Your task to perform on an android device: Go to network settings Image 0: 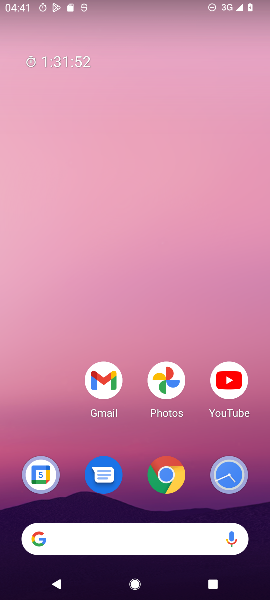
Step 0: press home button
Your task to perform on an android device: Go to network settings Image 1: 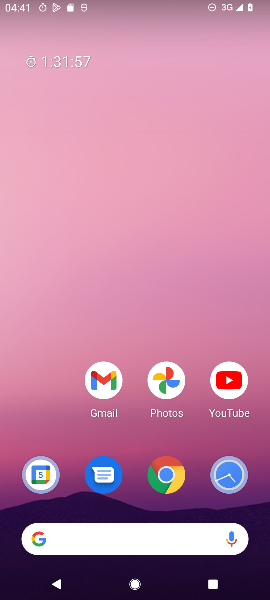
Step 1: drag from (51, 421) to (64, 194)
Your task to perform on an android device: Go to network settings Image 2: 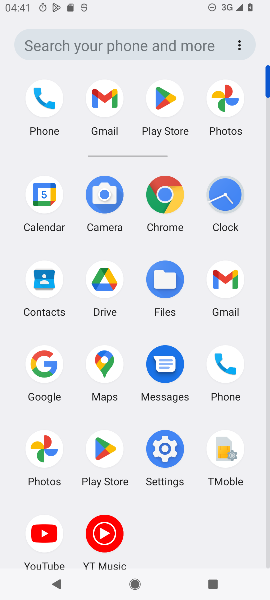
Step 2: click (166, 449)
Your task to perform on an android device: Go to network settings Image 3: 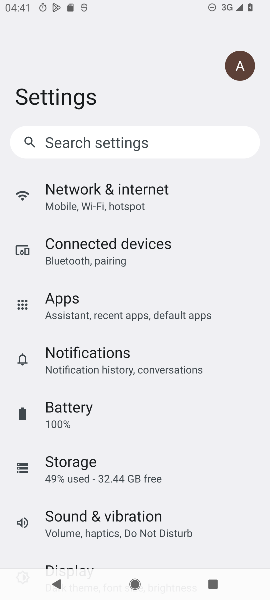
Step 3: drag from (238, 435) to (234, 314)
Your task to perform on an android device: Go to network settings Image 4: 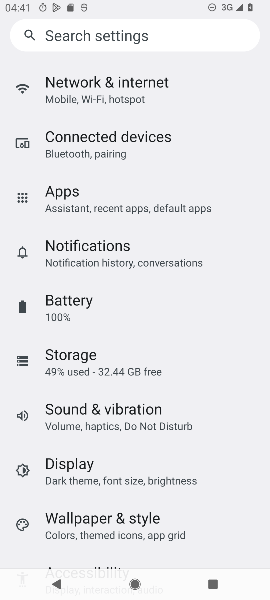
Step 4: drag from (218, 426) to (229, 348)
Your task to perform on an android device: Go to network settings Image 5: 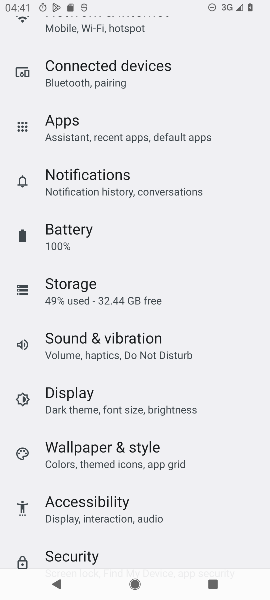
Step 5: drag from (222, 478) to (223, 362)
Your task to perform on an android device: Go to network settings Image 6: 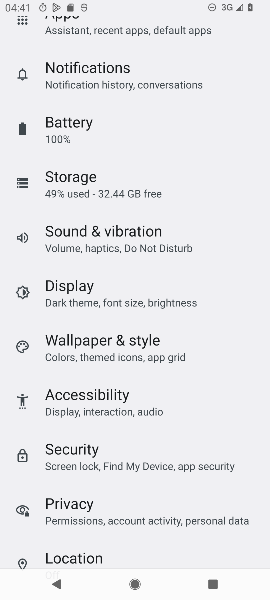
Step 6: drag from (225, 484) to (234, 378)
Your task to perform on an android device: Go to network settings Image 7: 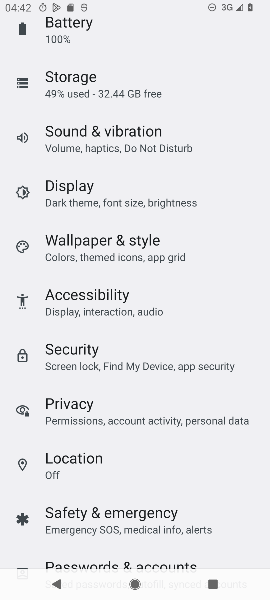
Step 7: drag from (214, 482) to (229, 375)
Your task to perform on an android device: Go to network settings Image 8: 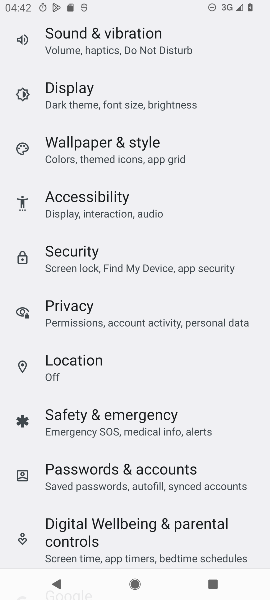
Step 8: drag from (221, 517) to (235, 374)
Your task to perform on an android device: Go to network settings Image 9: 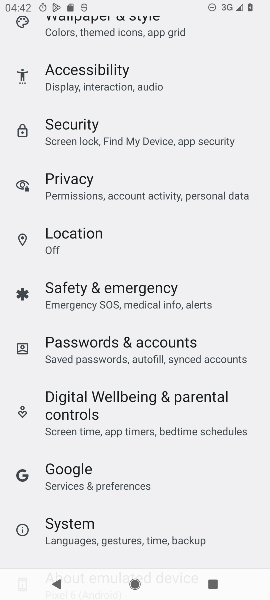
Step 9: drag from (232, 502) to (236, 397)
Your task to perform on an android device: Go to network settings Image 10: 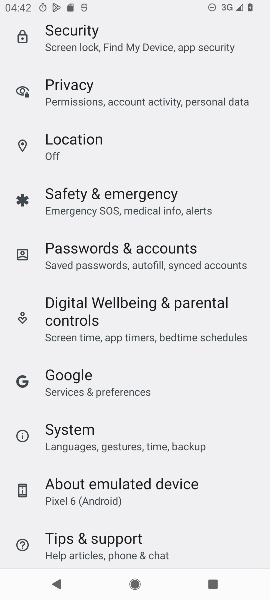
Step 10: drag from (223, 153) to (233, 238)
Your task to perform on an android device: Go to network settings Image 11: 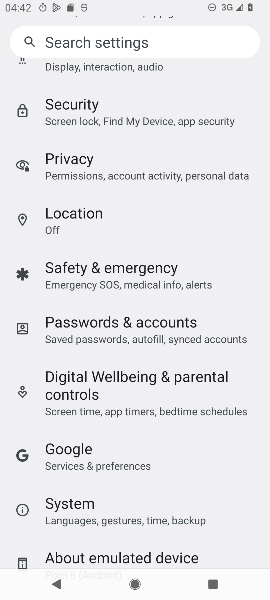
Step 11: drag from (241, 85) to (244, 195)
Your task to perform on an android device: Go to network settings Image 12: 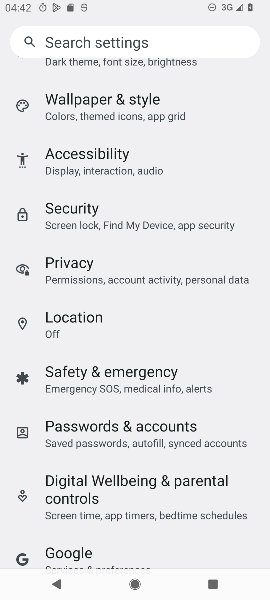
Step 12: drag from (237, 79) to (237, 207)
Your task to perform on an android device: Go to network settings Image 13: 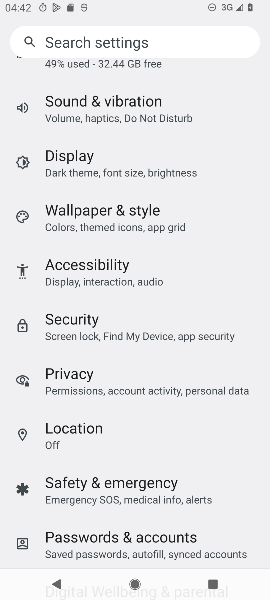
Step 13: drag from (236, 74) to (241, 199)
Your task to perform on an android device: Go to network settings Image 14: 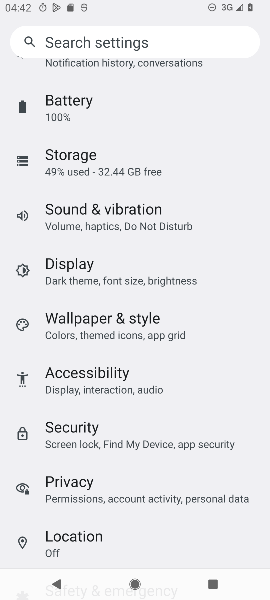
Step 14: drag from (228, 78) to (228, 198)
Your task to perform on an android device: Go to network settings Image 15: 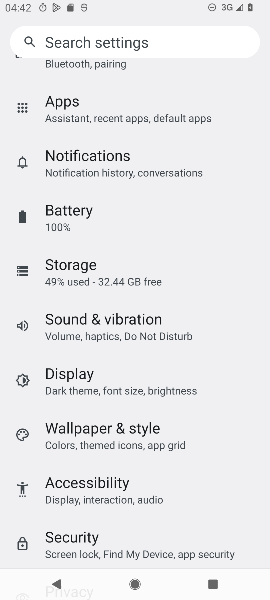
Step 15: drag from (238, 88) to (241, 230)
Your task to perform on an android device: Go to network settings Image 16: 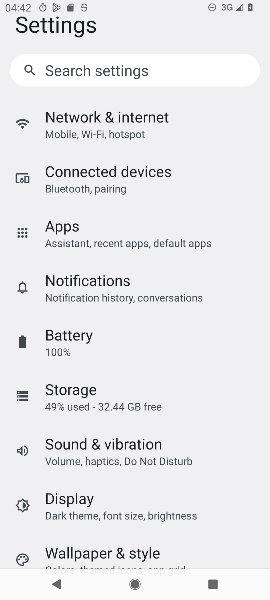
Step 16: click (131, 122)
Your task to perform on an android device: Go to network settings Image 17: 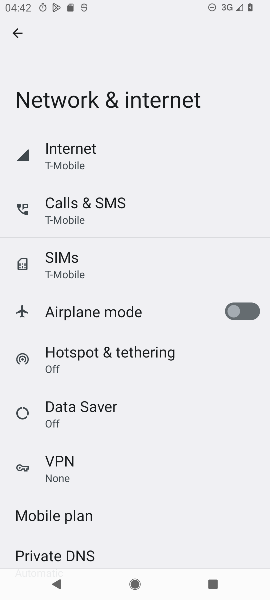
Step 17: task complete